Your task to perform on an android device: Go to Reddit.com Image 0: 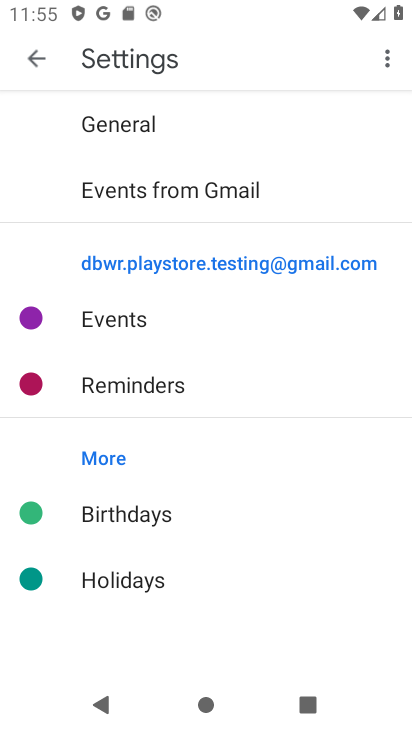
Step 0: press home button
Your task to perform on an android device: Go to Reddit.com Image 1: 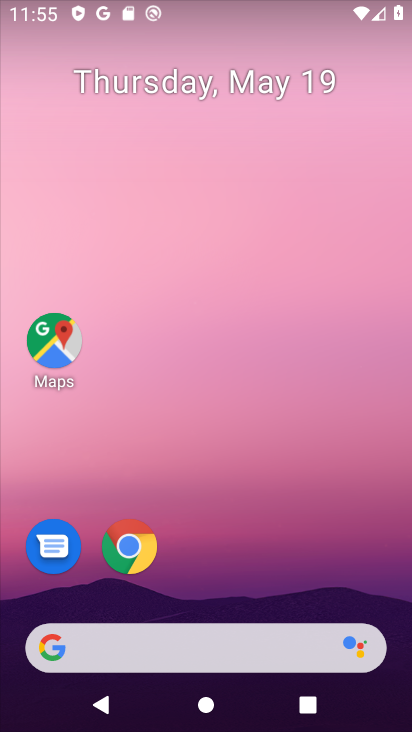
Step 1: click (135, 545)
Your task to perform on an android device: Go to Reddit.com Image 2: 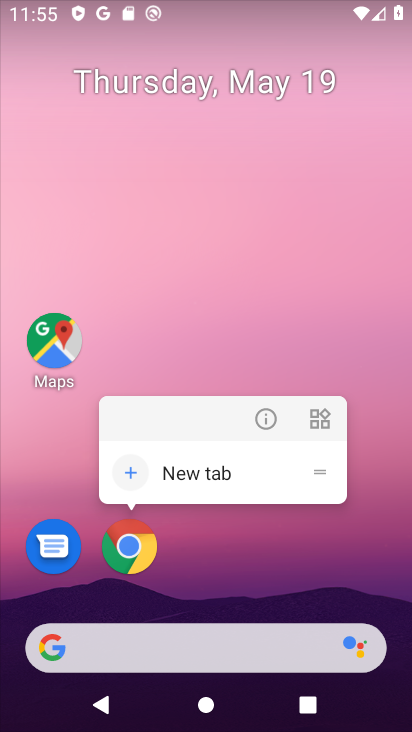
Step 2: click (128, 541)
Your task to perform on an android device: Go to Reddit.com Image 3: 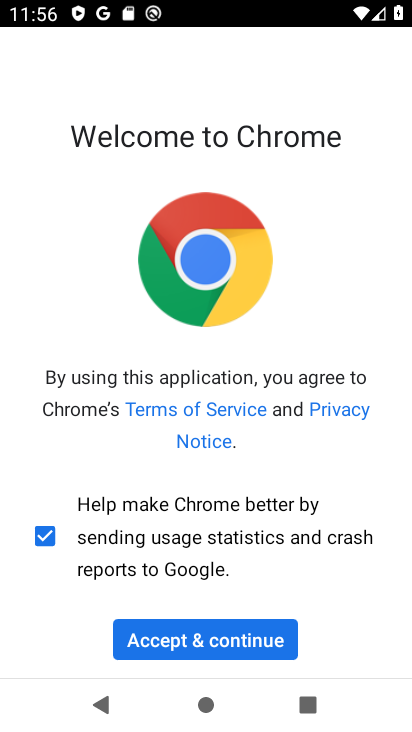
Step 3: click (183, 635)
Your task to perform on an android device: Go to Reddit.com Image 4: 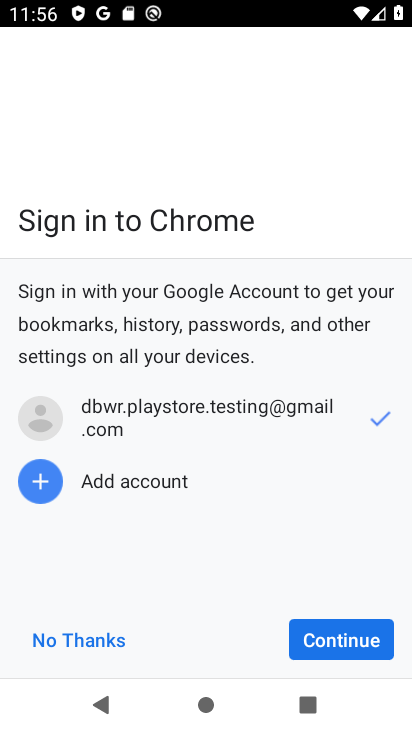
Step 4: click (353, 628)
Your task to perform on an android device: Go to Reddit.com Image 5: 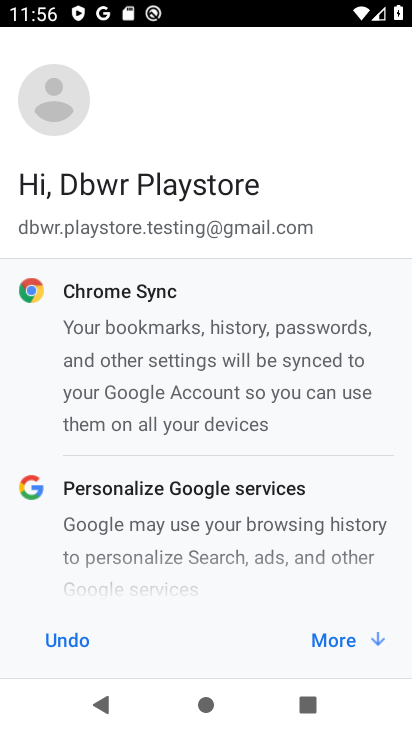
Step 5: click (362, 631)
Your task to perform on an android device: Go to Reddit.com Image 6: 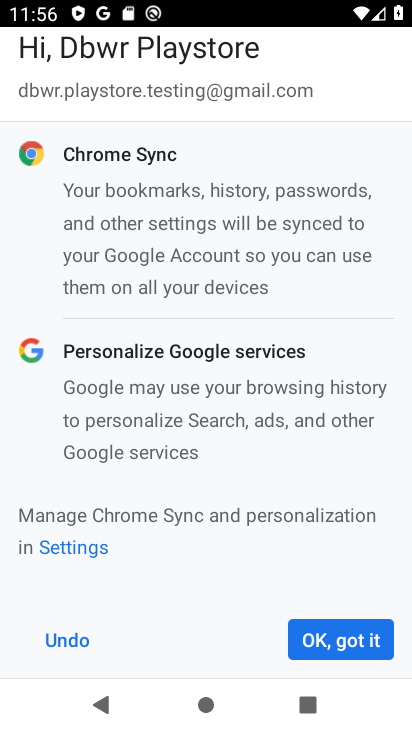
Step 6: click (330, 637)
Your task to perform on an android device: Go to Reddit.com Image 7: 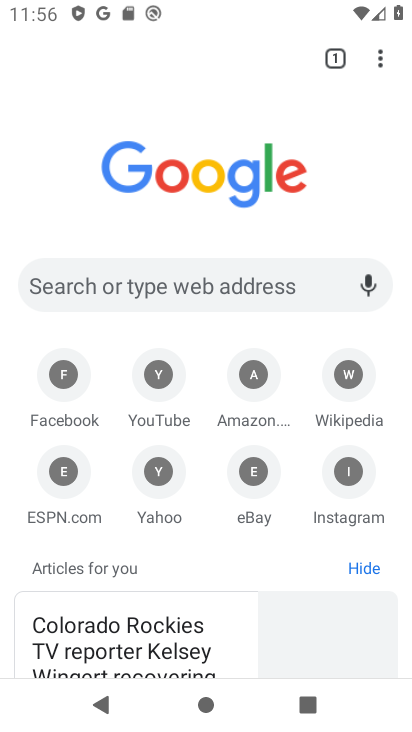
Step 7: click (240, 291)
Your task to perform on an android device: Go to Reddit.com Image 8: 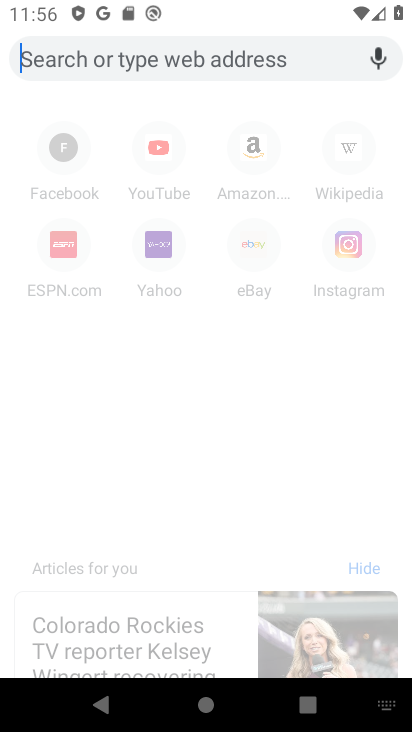
Step 8: type "reddit.com"
Your task to perform on an android device: Go to Reddit.com Image 9: 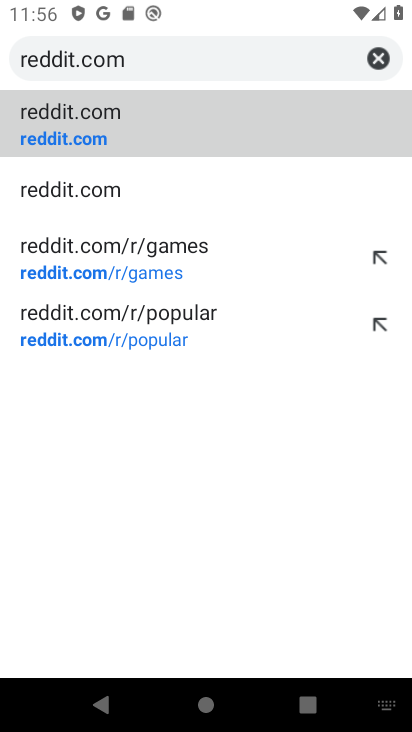
Step 9: click (67, 134)
Your task to perform on an android device: Go to Reddit.com Image 10: 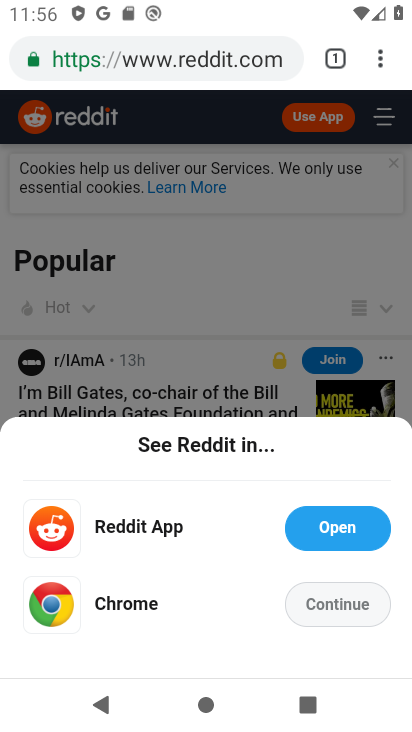
Step 10: task complete